Your task to perform on an android device: move an email to a new category in the gmail app Image 0: 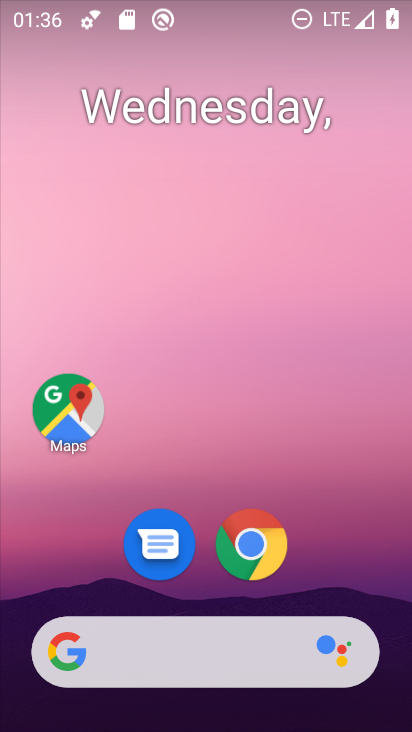
Step 0: drag from (339, 564) to (351, 64)
Your task to perform on an android device: move an email to a new category in the gmail app Image 1: 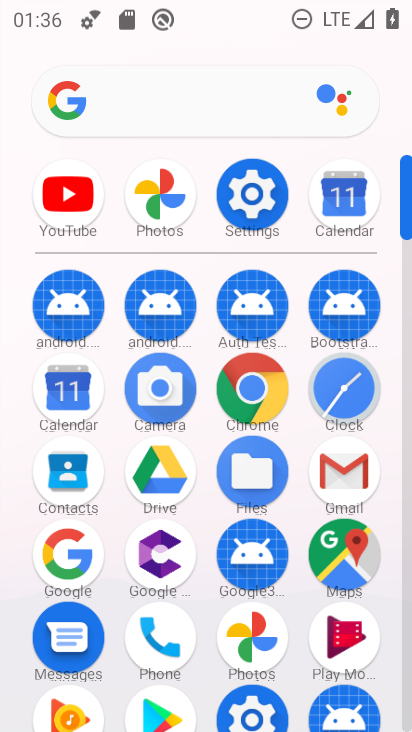
Step 1: click (339, 467)
Your task to perform on an android device: move an email to a new category in the gmail app Image 2: 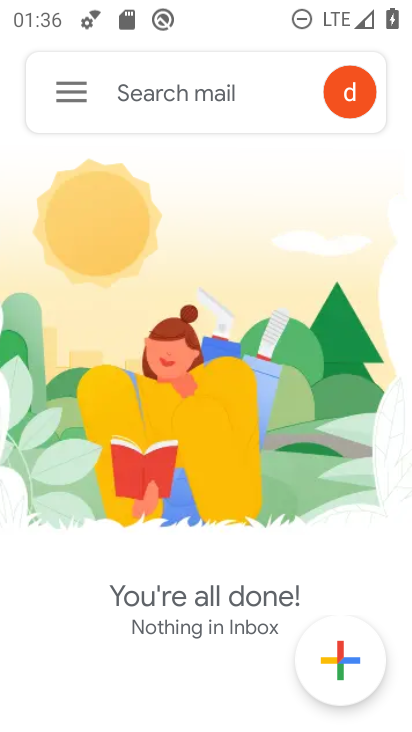
Step 2: click (79, 96)
Your task to perform on an android device: move an email to a new category in the gmail app Image 3: 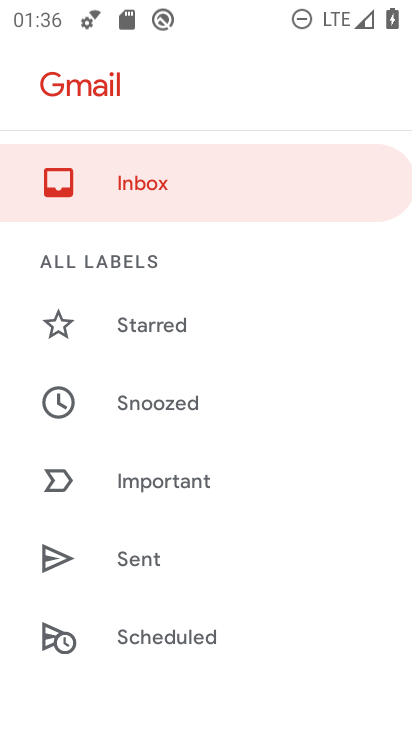
Step 3: drag from (215, 615) to (243, 180)
Your task to perform on an android device: move an email to a new category in the gmail app Image 4: 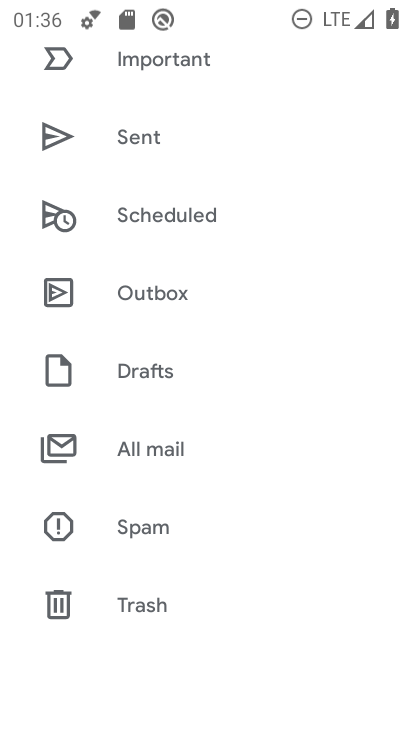
Step 4: click (177, 463)
Your task to perform on an android device: move an email to a new category in the gmail app Image 5: 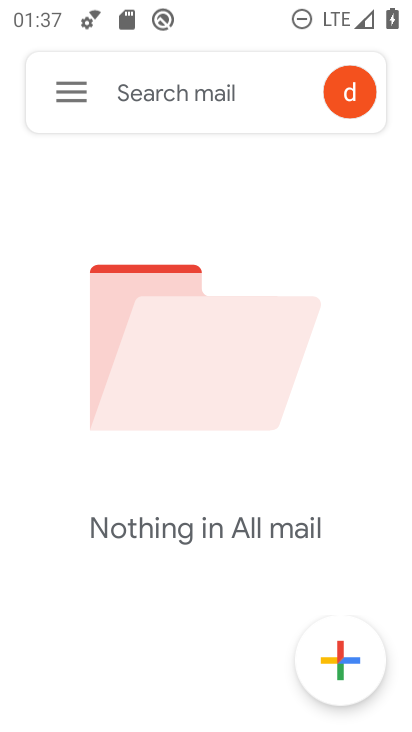
Step 5: task complete